Your task to perform on an android device: Go to eBay Image 0: 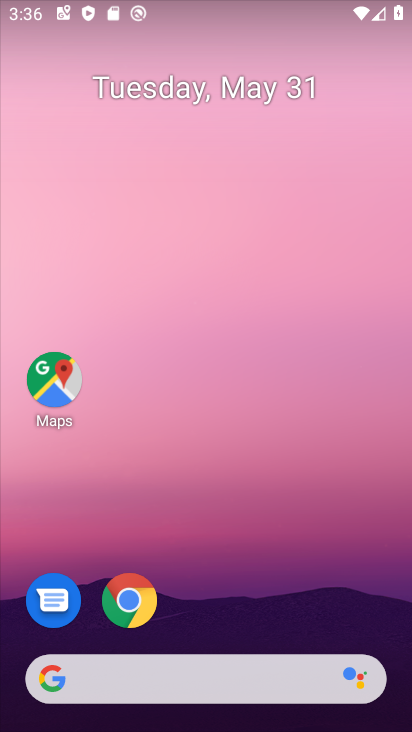
Step 0: drag from (238, 189) to (242, 96)
Your task to perform on an android device: Go to eBay Image 1: 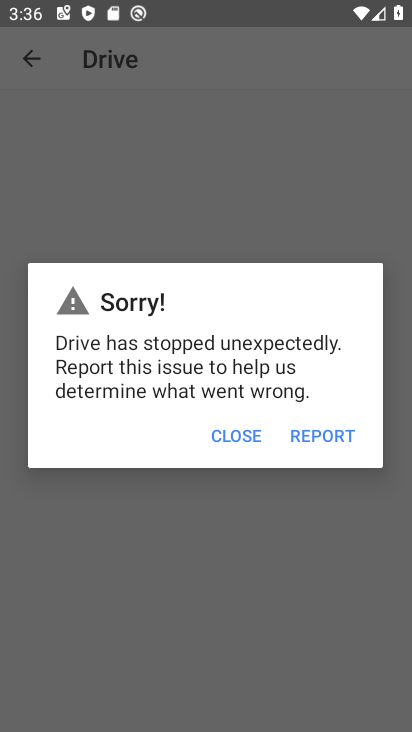
Step 1: press home button
Your task to perform on an android device: Go to eBay Image 2: 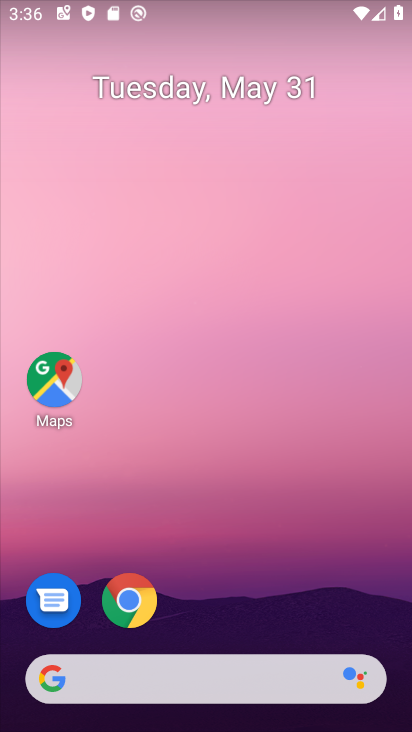
Step 2: click (124, 593)
Your task to perform on an android device: Go to eBay Image 3: 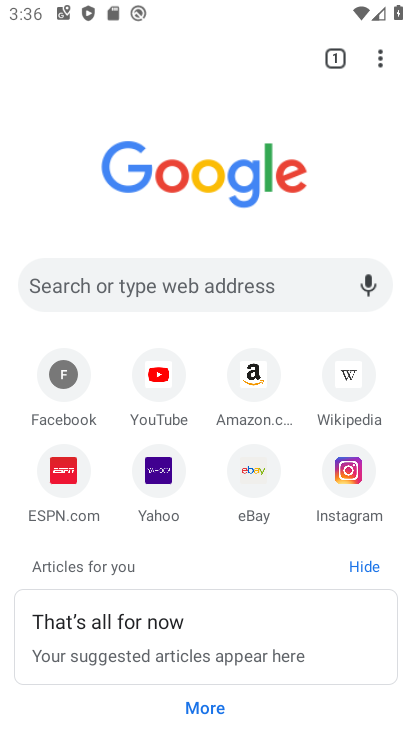
Step 3: click (255, 464)
Your task to perform on an android device: Go to eBay Image 4: 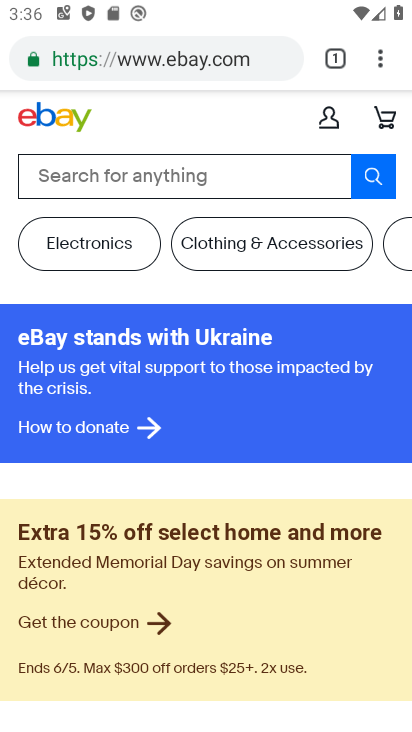
Step 4: task complete